Your task to perform on an android device: Open calendar and show me the second week of next month Image 0: 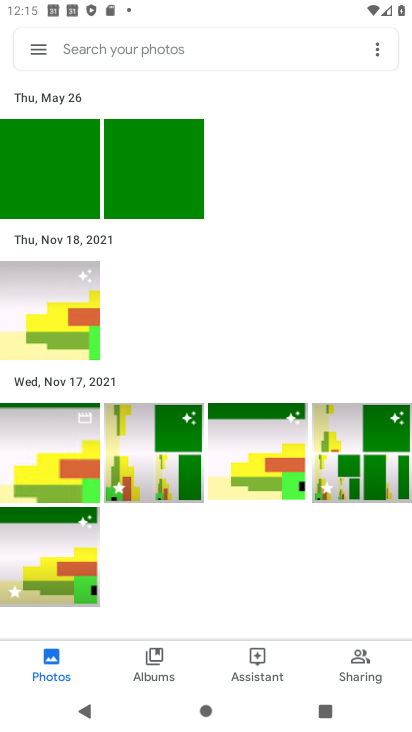
Step 0: press back button
Your task to perform on an android device: Open calendar and show me the second week of next month Image 1: 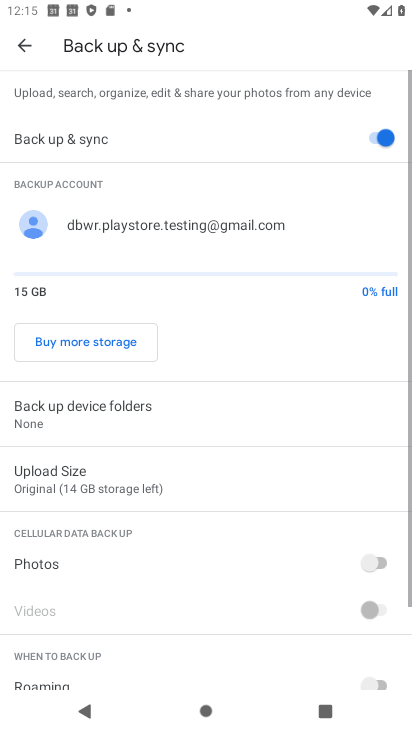
Step 1: press back button
Your task to perform on an android device: Open calendar and show me the second week of next month Image 2: 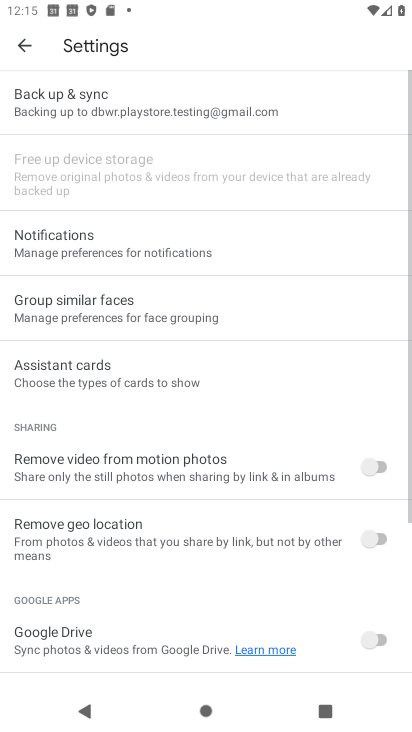
Step 2: press back button
Your task to perform on an android device: Open calendar and show me the second week of next month Image 3: 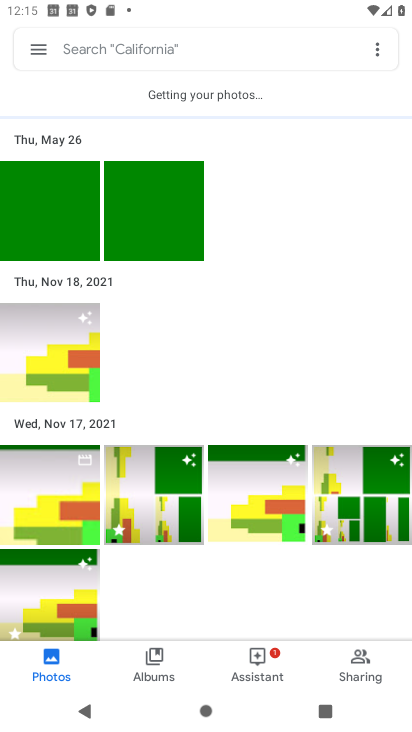
Step 3: press back button
Your task to perform on an android device: Open calendar and show me the second week of next month Image 4: 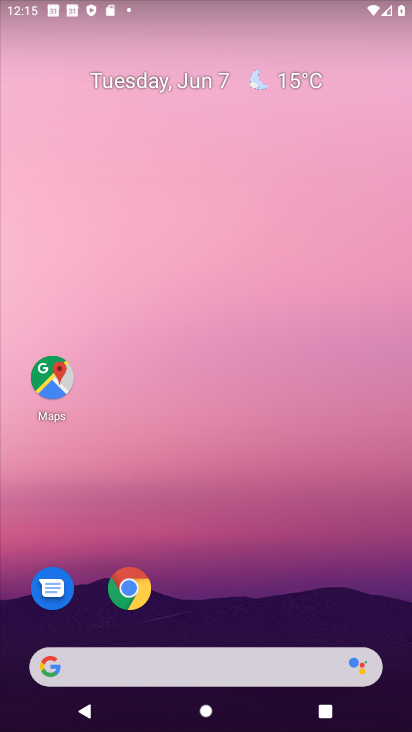
Step 4: drag from (280, 588) to (322, 59)
Your task to perform on an android device: Open calendar and show me the second week of next month Image 5: 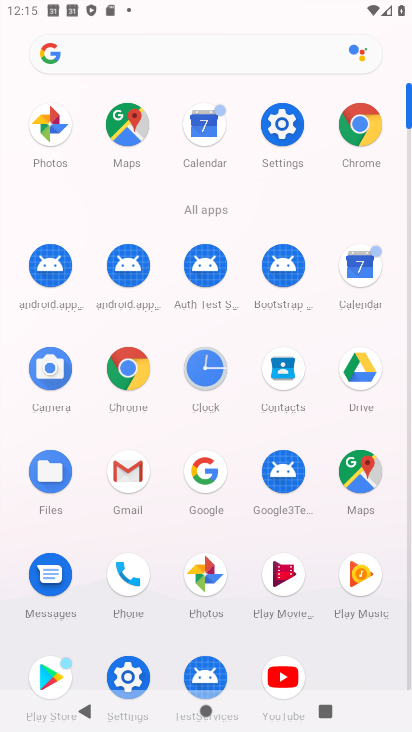
Step 5: click (363, 269)
Your task to perform on an android device: Open calendar and show me the second week of next month Image 6: 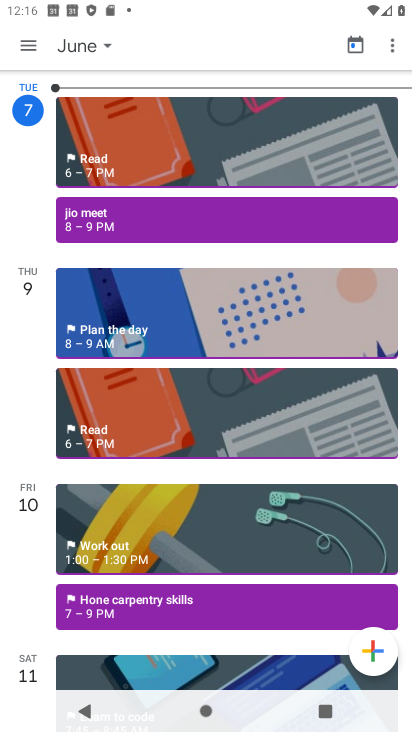
Step 6: click (99, 48)
Your task to perform on an android device: Open calendar and show me the second week of next month Image 7: 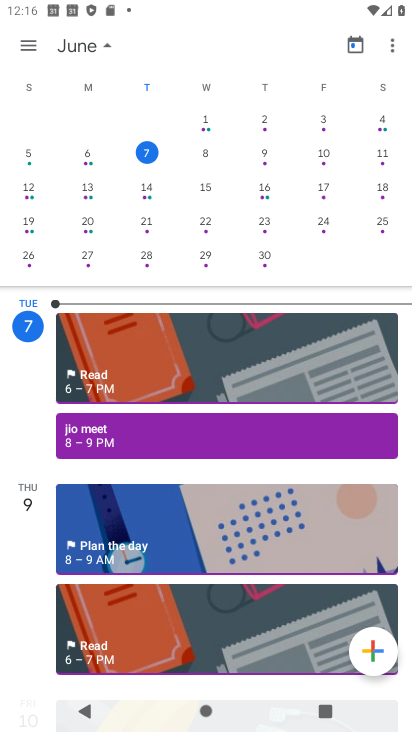
Step 7: drag from (388, 206) to (15, 205)
Your task to perform on an android device: Open calendar and show me the second week of next month Image 8: 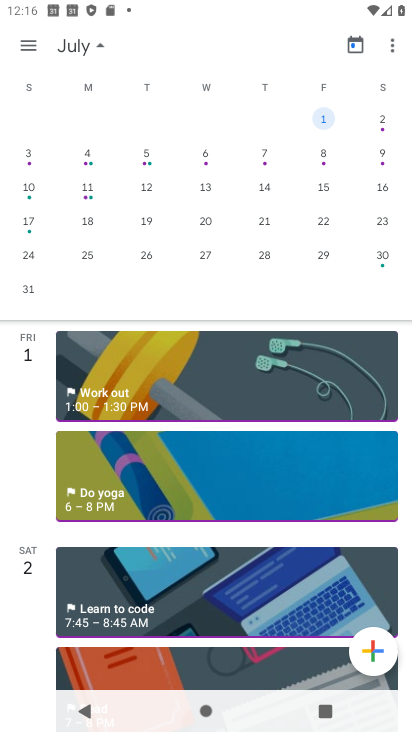
Step 8: click (86, 189)
Your task to perform on an android device: Open calendar and show me the second week of next month Image 9: 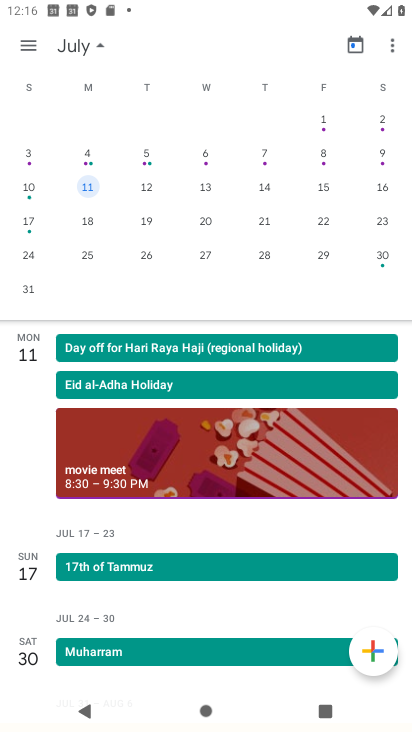
Step 9: task complete